Your task to perform on an android device: Open Google Chrome and click the shortcut for Amazon.com Image 0: 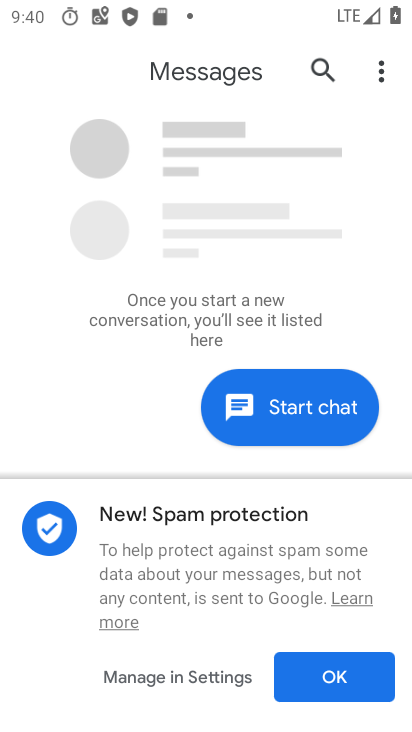
Step 0: press home button
Your task to perform on an android device: Open Google Chrome and click the shortcut for Amazon.com Image 1: 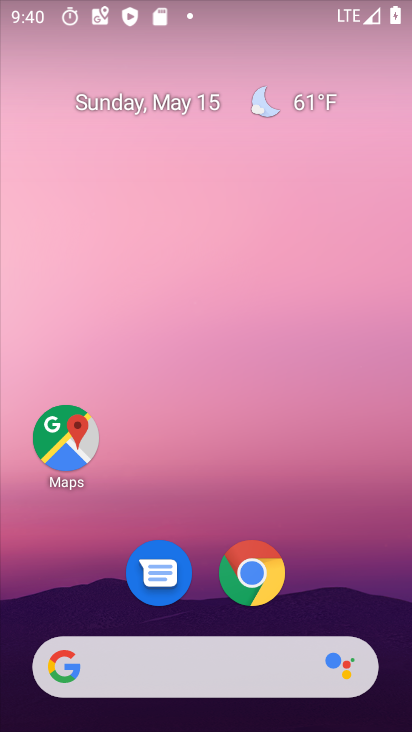
Step 1: click (236, 581)
Your task to perform on an android device: Open Google Chrome and click the shortcut for Amazon.com Image 2: 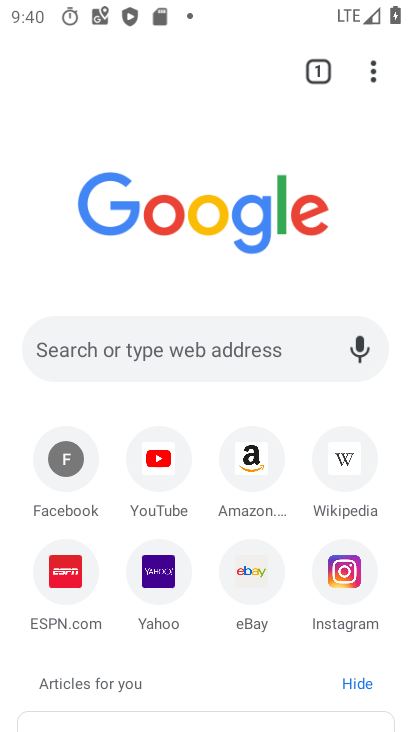
Step 2: click (248, 468)
Your task to perform on an android device: Open Google Chrome and click the shortcut for Amazon.com Image 3: 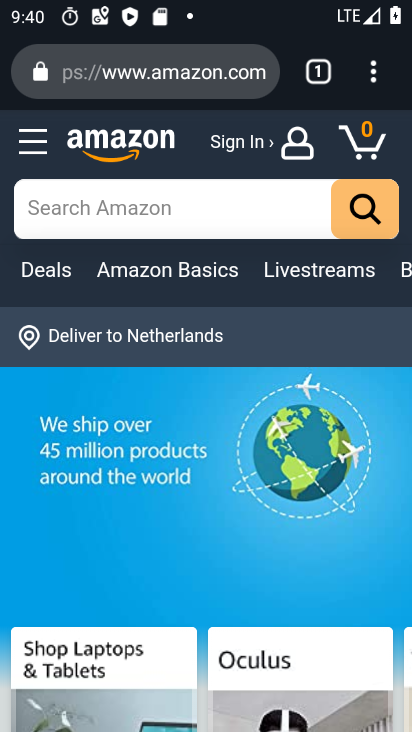
Step 3: task complete